Your task to perform on an android device: turn off smart reply in the gmail app Image 0: 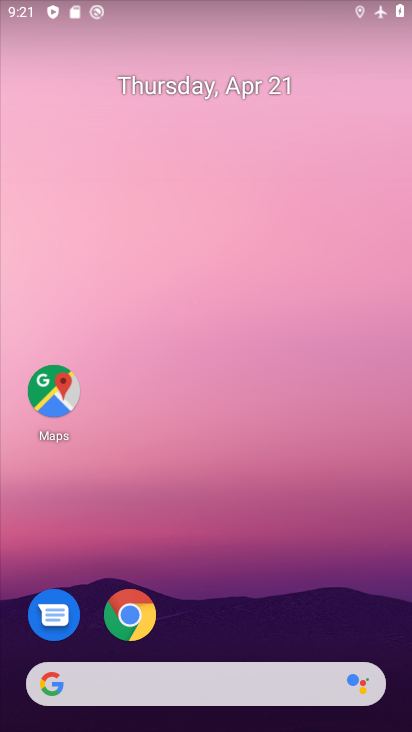
Step 0: drag from (201, 723) to (200, 173)
Your task to perform on an android device: turn off smart reply in the gmail app Image 1: 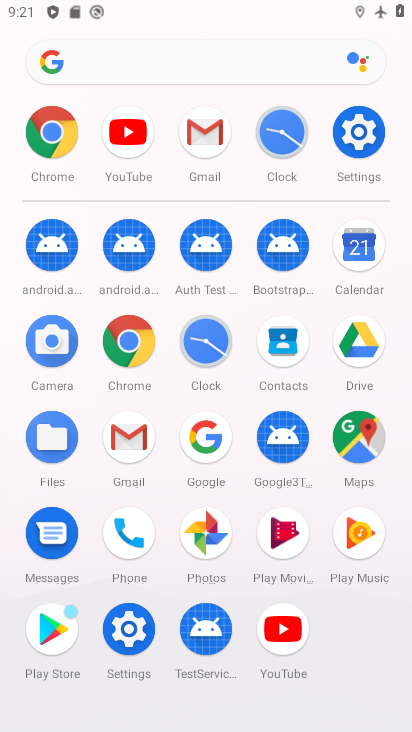
Step 1: click (208, 139)
Your task to perform on an android device: turn off smart reply in the gmail app Image 2: 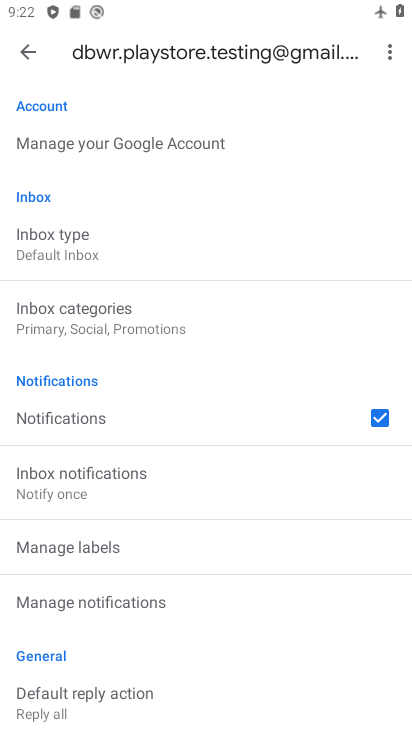
Step 2: drag from (154, 667) to (162, 285)
Your task to perform on an android device: turn off smart reply in the gmail app Image 3: 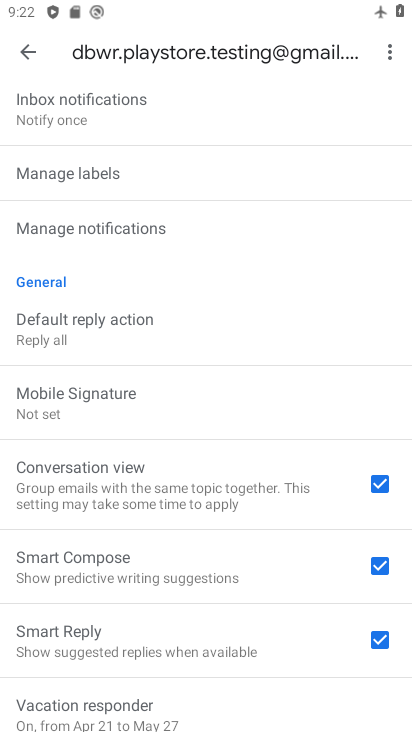
Step 3: click (377, 636)
Your task to perform on an android device: turn off smart reply in the gmail app Image 4: 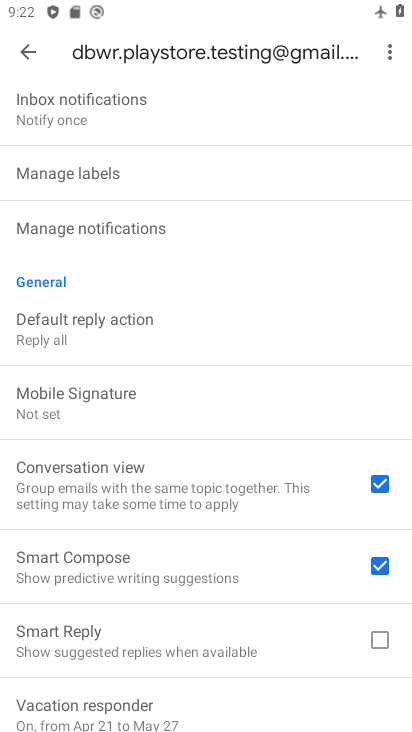
Step 4: task complete